Your task to perform on an android device: turn on the 24-hour format for clock Image 0: 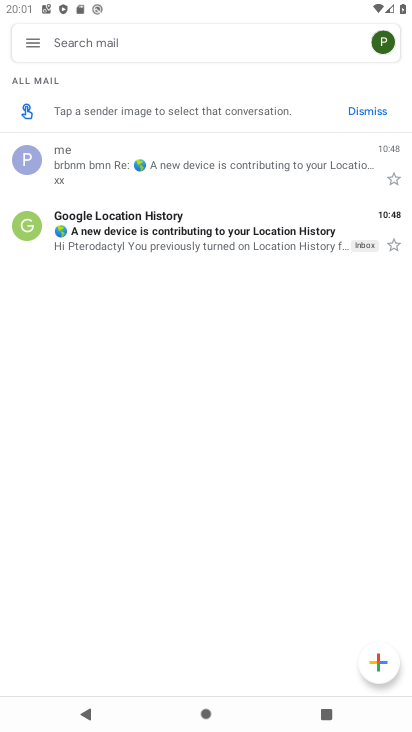
Step 0: press home button
Your task to perform on an android device: turn on the 24-hour format for clock Image 1: 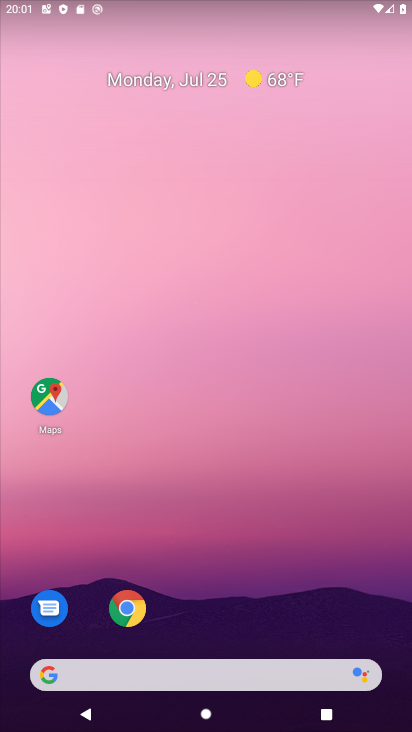
Step 1: drag from (223, 628) to (219, 5)
Your task to perform on an android device: turn on the 24-hour format for clock Image 2: 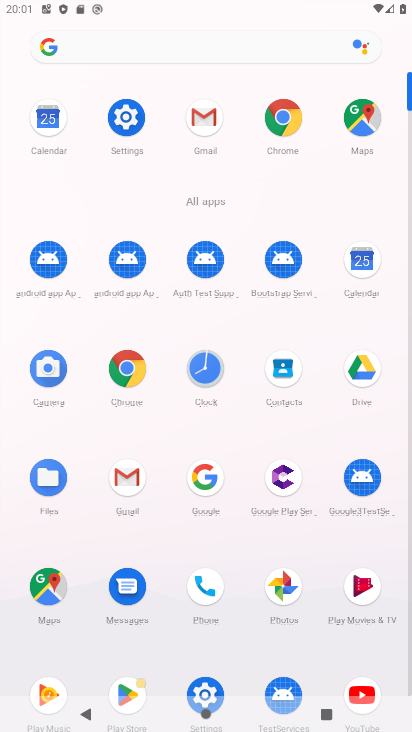
Step 2: click (204, 374)
Your task to perform on an android device: turn on the 24-hour format for clock Image 3: 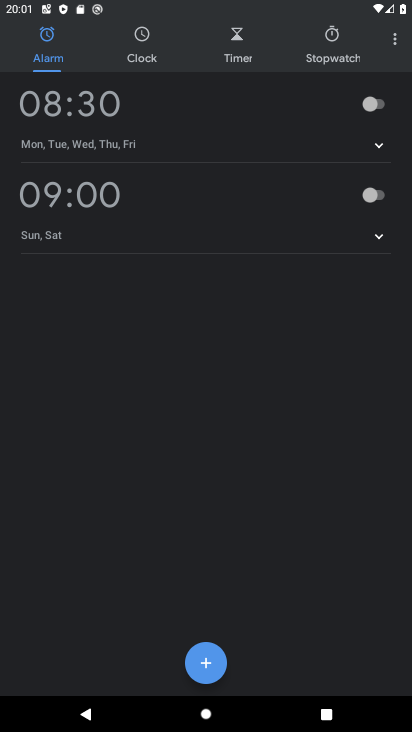
Step 3: click (392, 42)
Your task to perform on an android device: turn on the 24-hour format for clock Image 4: 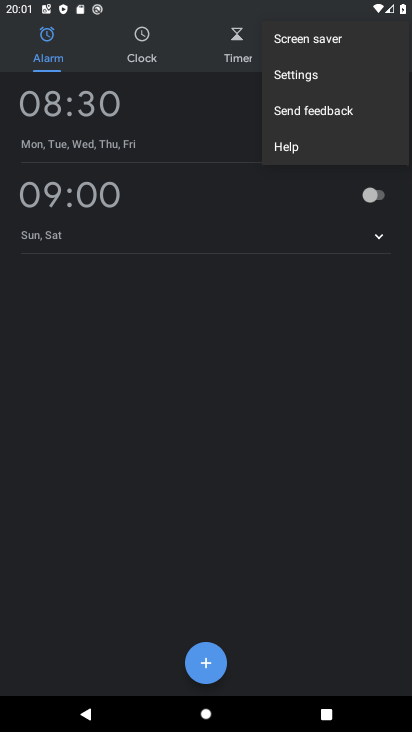
Step 4: click (294, 75)
Your task to perform on an android device: turn on the 24-hour format for clock Image 5: 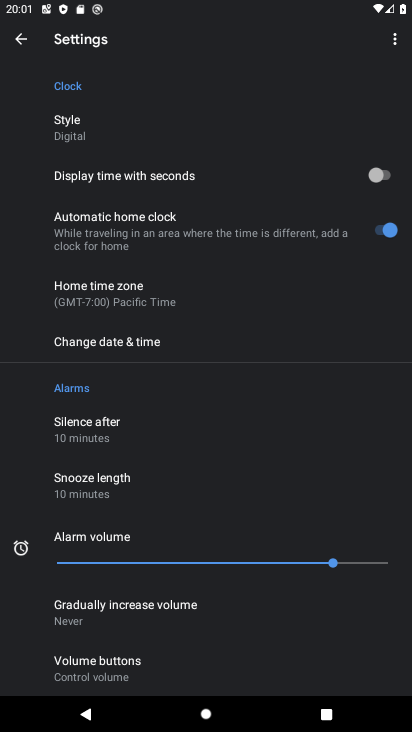
Step 5: click (139, 343)
Your task to perform on an android device: turn on the 24-hour format for clock Image 6: 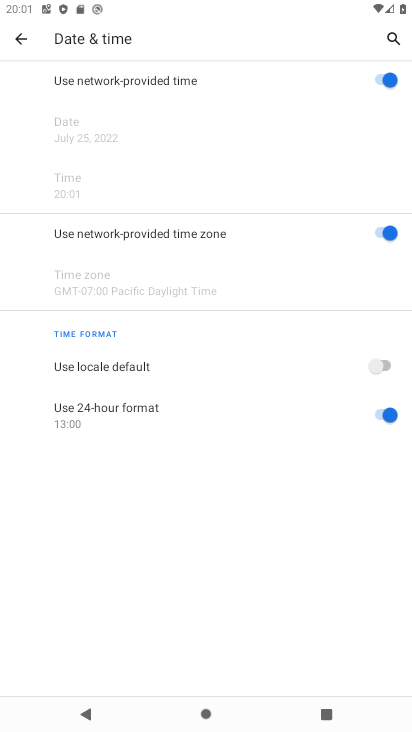
Step 6: task complete